Your task to perform on an android device: Open Chrome and go to settings Image 0: 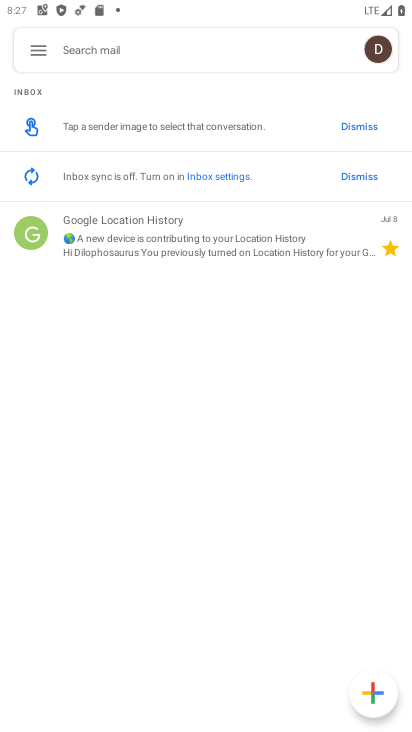
Step 0: press home button
Your task to perform on an android device: Open Chrome and go to settings Image 1: 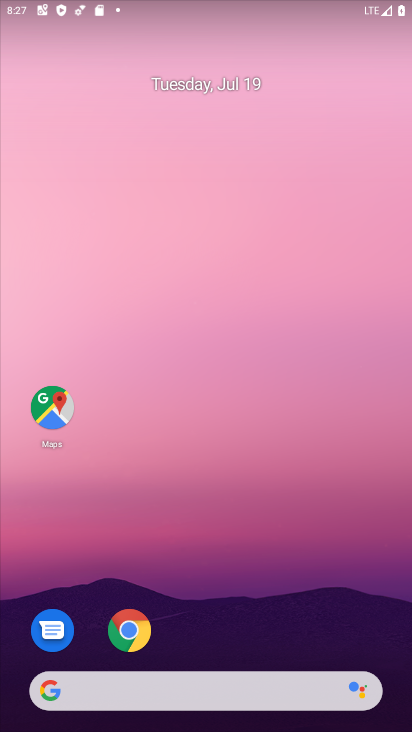
Step 1: drag from (156, 679) to (197, 205)
Your task to perform on an android device: Open Chrome and go to settings Image 2: 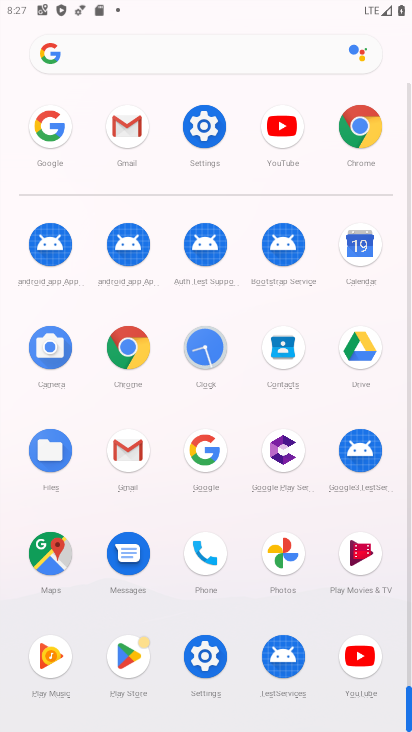
Step 2: click (209, 144)
Your task to perform on an android device: Open Chrome and go to settings Image 3: 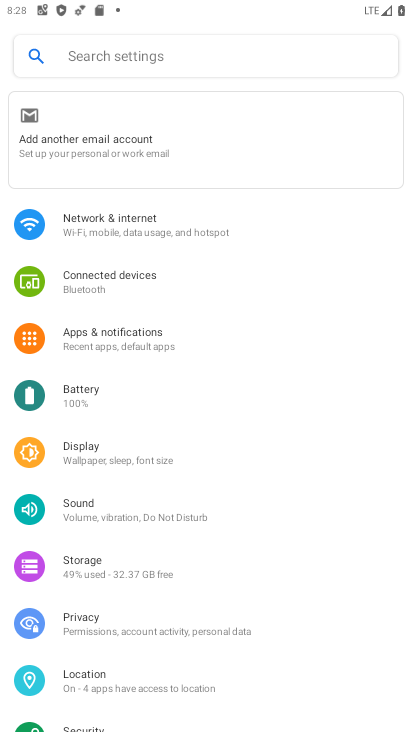
Step 3: drag from (211, 600) to (207, 420)
Your task to perform on an android device: Open Chrome and go to settings Image 4: 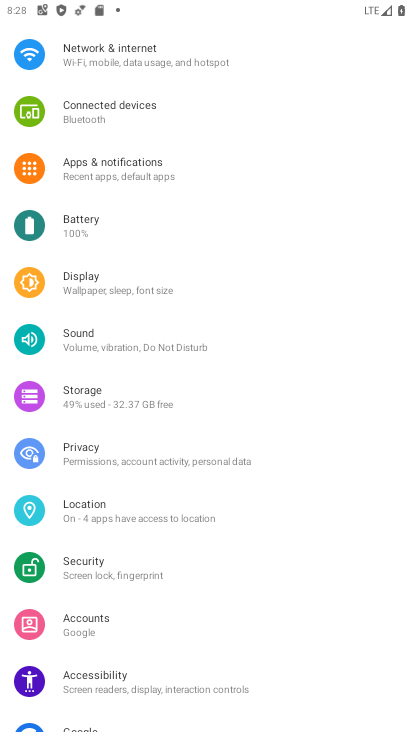
Step 4: press home button
Your task to perform on an android device: Open Chrome and go to settings Image 5: 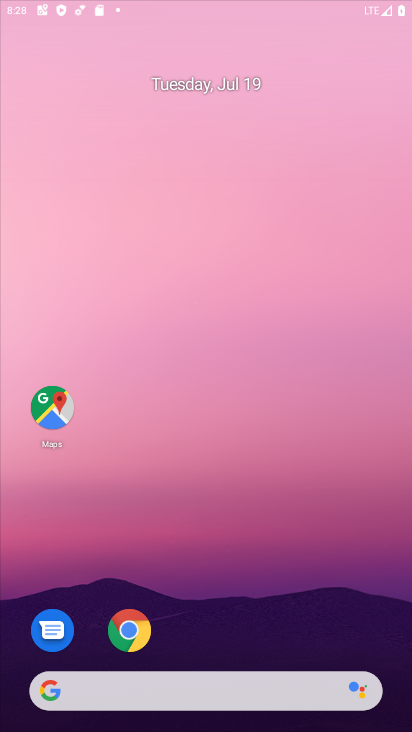
Step 5: drag from (200, 601) to (254, 159)
Your task to perform on an android device: Open Chrome and go to settings Image 6: 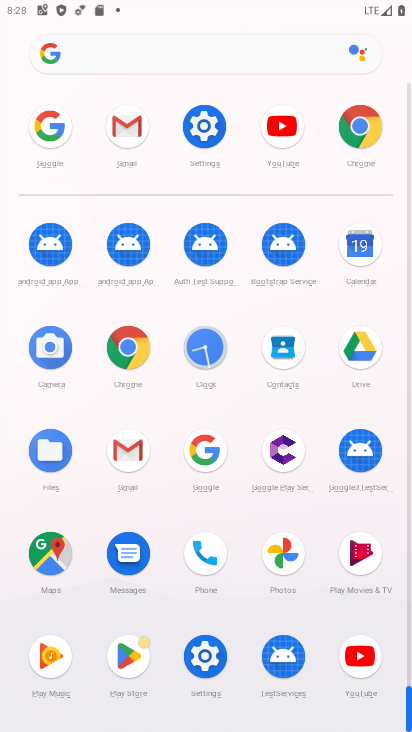
Step 6: click (132, 363)
Your task to perform on an android device: Open Chrome and go to settings Image 7: 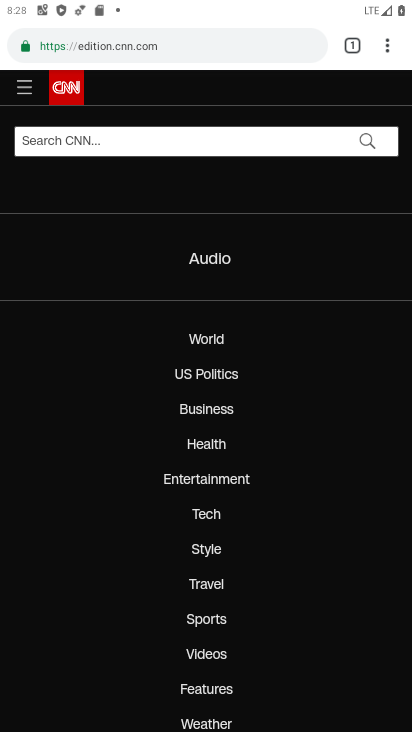
Step 7: click (388, 41)
Your task to perform on an android device: Open Chrome and go to settings Image 8: 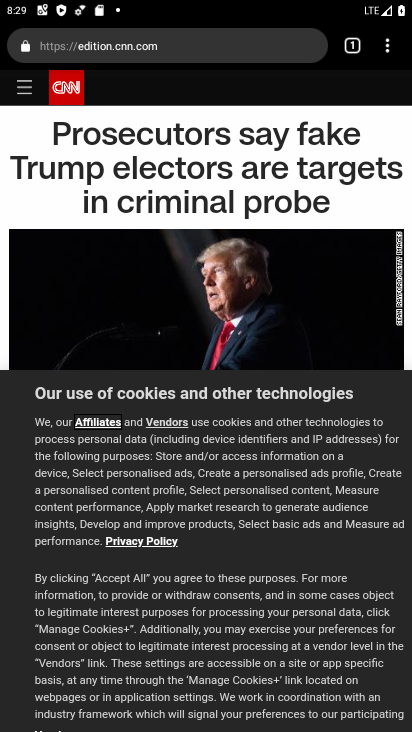
Step 8: click (387, 49)
Your task to perform on an android device: Open Chrome and go to settings Image 9: 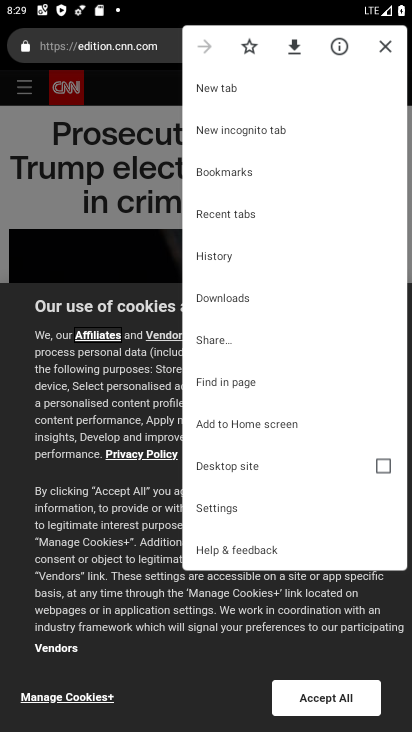
Step 9: click (231, 510)
Your task to perform on an android device: Open Chrome and go to settings Image 10: 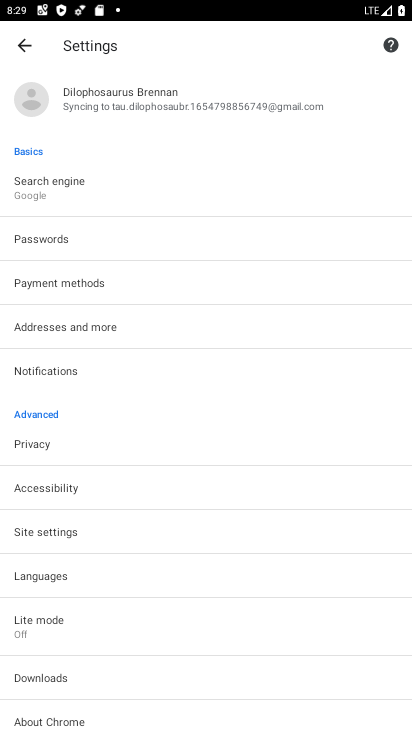
Step 10: task complete